Your task to perform on an android device: change the upload size in google photos Image 0: 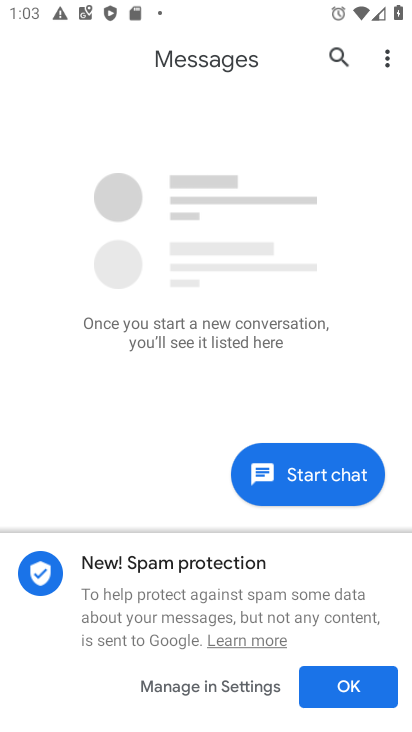
Step 0: press home button
Your task to perform on an android device: change the upload size in google photos Image 1: 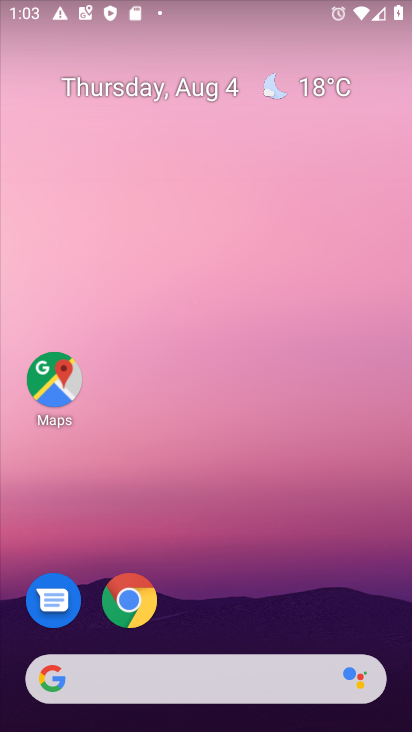
Step 1: drag from (207, 679) to (286, 184)
Your task to perform on an android device: change the upload size in google photos Image 2: 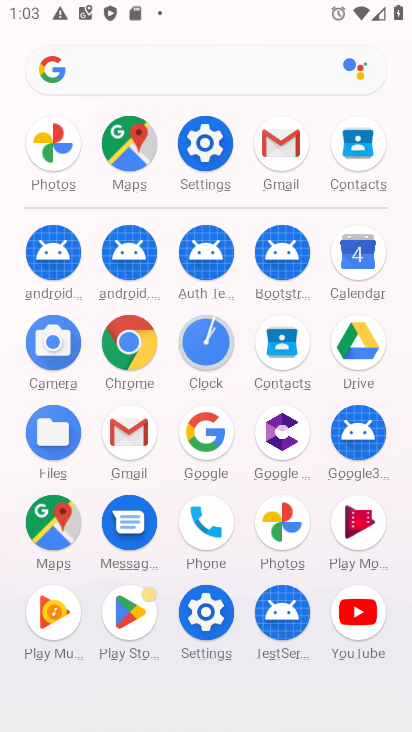
Step 2: click (284, 523)
Your task to perform on an android device: change the upload size in google photos Image 3: 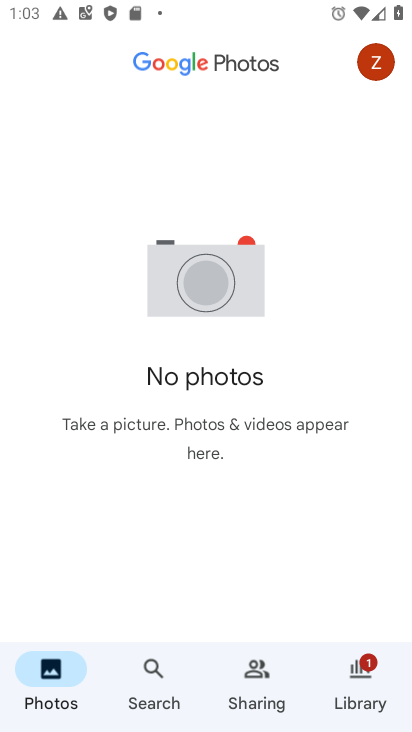
Step 3: click (381, 61)
Your task to perform on an android device: change the upload size in google photos Image 4: 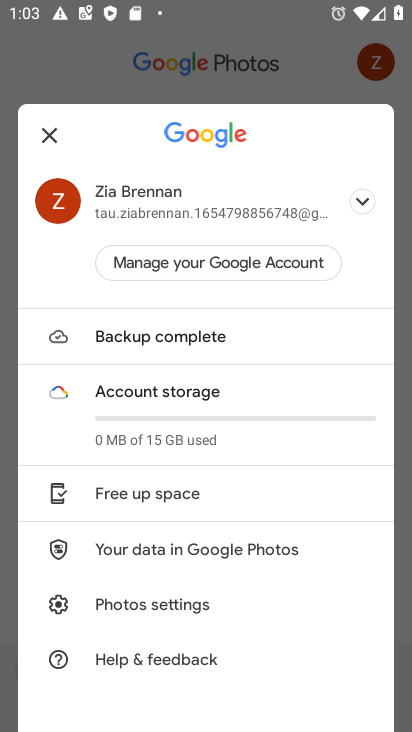
Step 4: click (197, 611)
Your task to perform on an android device: change the upload size in google photos Image 5: 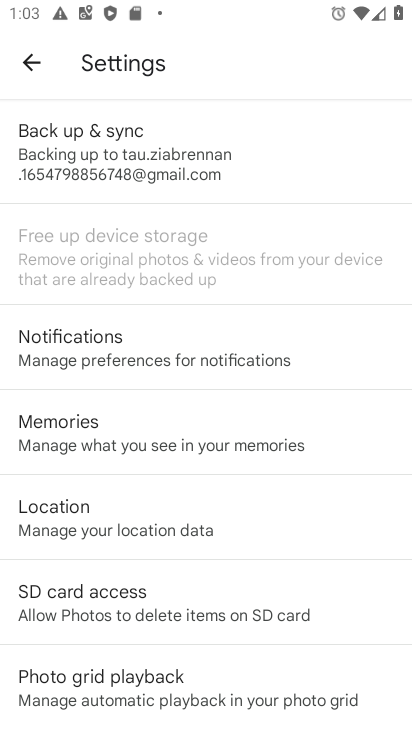
Step 5: click (166, 170)
Your task to perform on an android device: change the upload size in google photos Image 6: 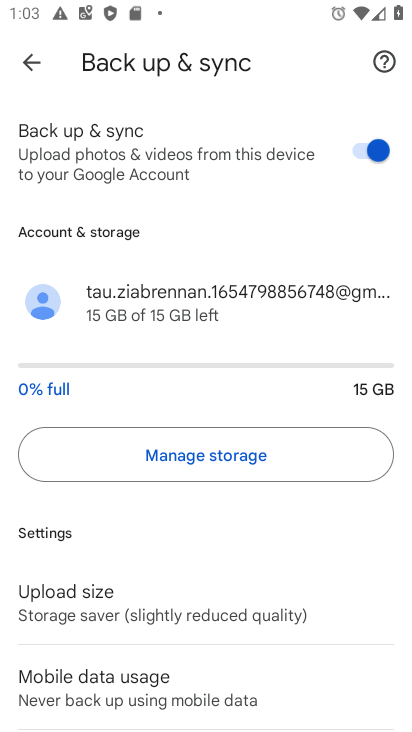
Step 6: click (140, 602)
Your task to perform on an android device: change the upload size in google photos Image 7: 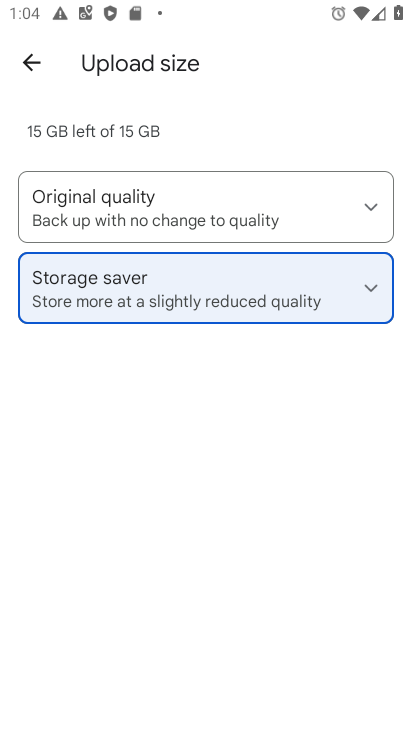
Step 7: click (370, 203)
Your task to perform on an android device: change the upload size in google photos Image 8: 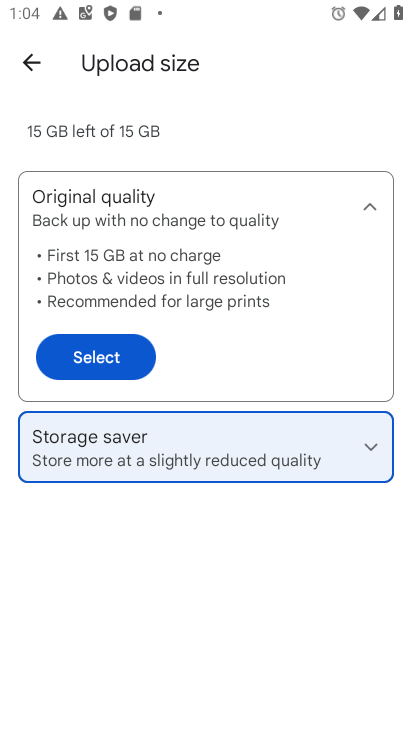
Step 8: click (98, 360)
Your task to perform on an android device: change the upload size in google photos Image 9: 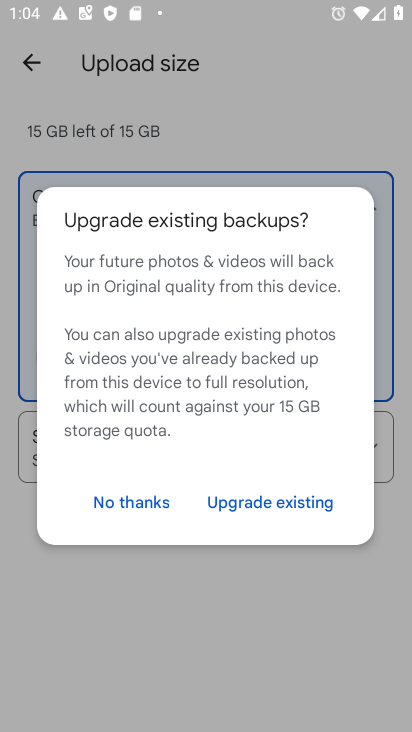
Step 9: click (125, 506)
Your task to perform on an android device: change the upload size in google photos Image 10: 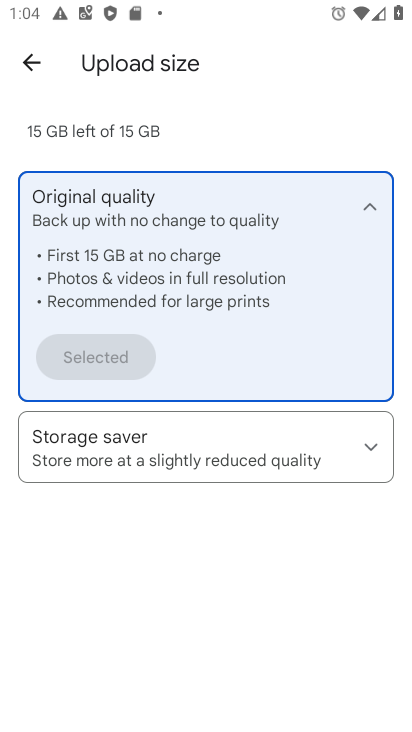
Step 10: task complete